Your task to perform on an android device: Open CNN.com Image 0: 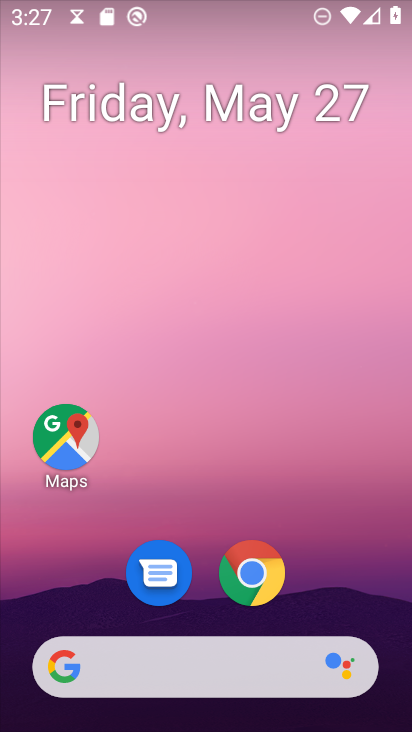
Step 0: click (246, 573)
Your task to perform on an android device: Open CNN.com Image 1: 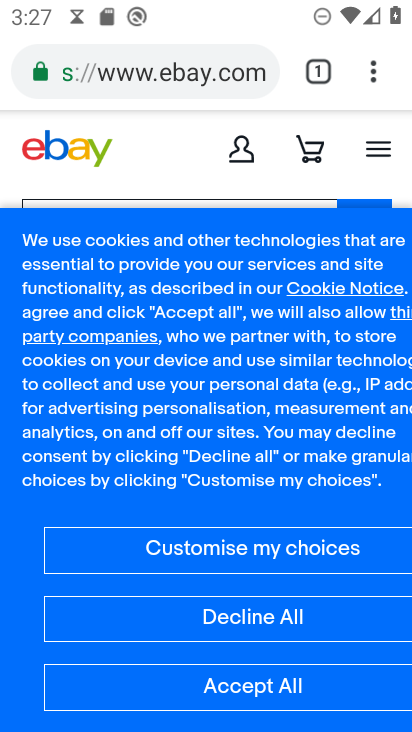
Step 1: click (190, 76)
Your task to perform on an android device: Open CNN.com Image 2: 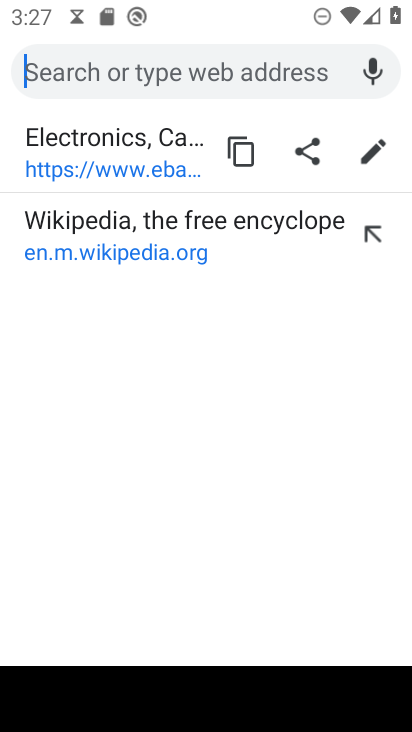
Step 2: type "CNN.com"
Your task to perform on an android device: Open CNN.com Image 3: 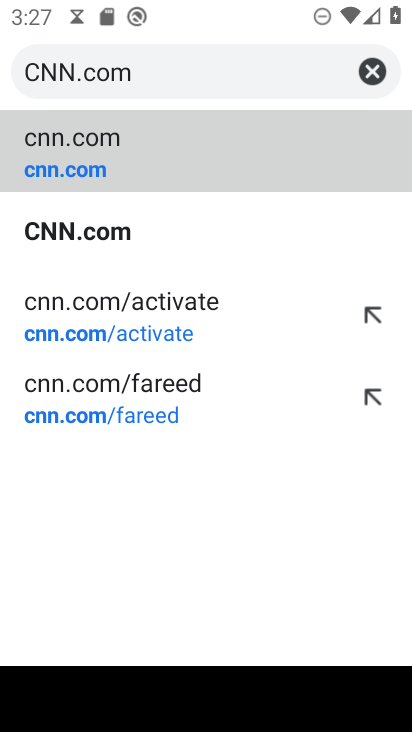
Step 3: click (84, 164)
Your task to perform on an android device: Open CNN.com Image 4: 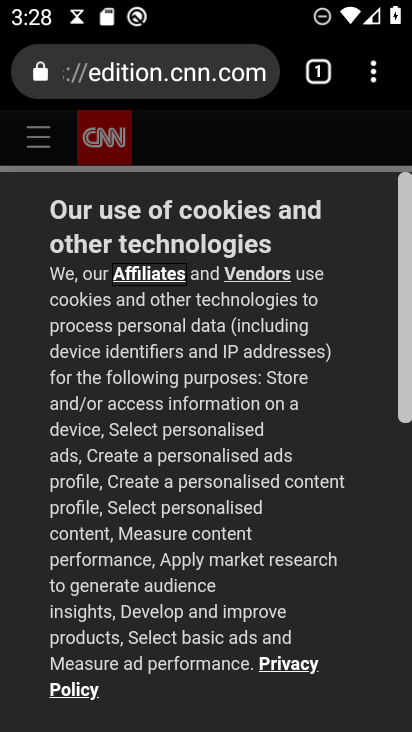
Step 4: task complete